Your task to perform on an android device: What's the weather going to be tomorrow? Image 0: 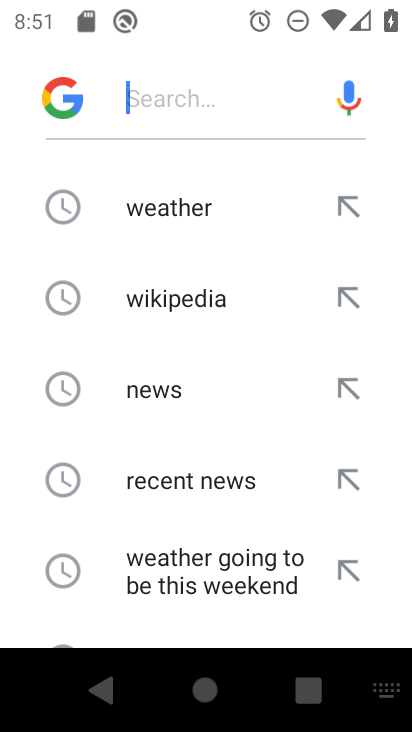
Step 0: press home button
Your task to perform on an android device: What's the weather going to be tomorrow? Image 1: 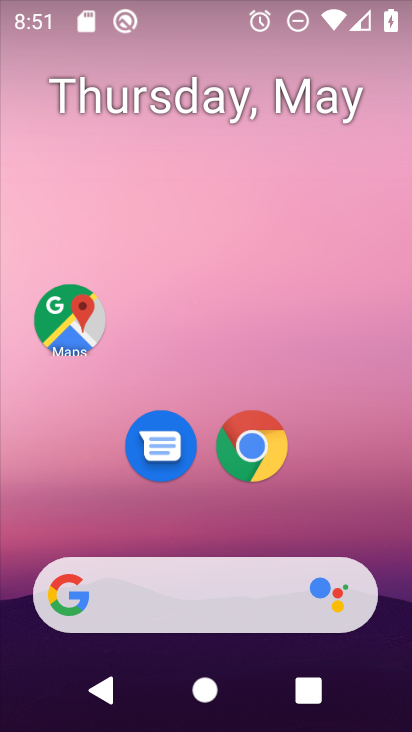
Step 1: drag from (343, 501) to (352, 143)
Your task to perform on an android device: What's the weather going to be tomorrow? Image 2: 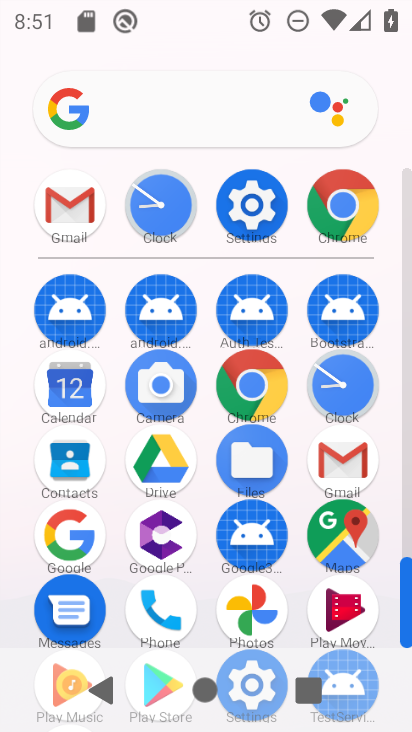
Step 2: click (341, 212)
Your task to perform on an android device: What's the weather going to be tomorrow? Image 3: 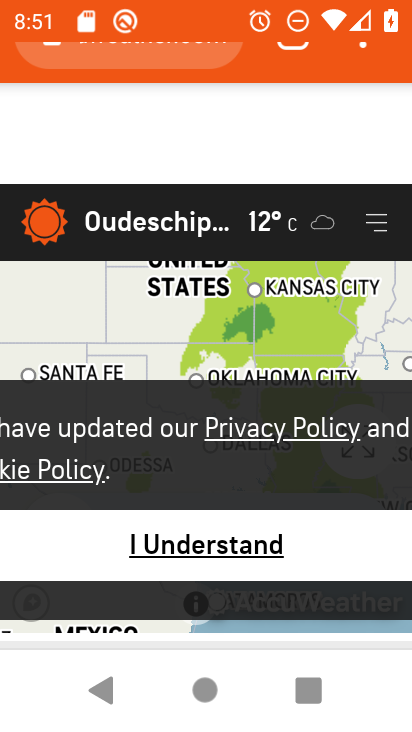
Step 3: drag from (254, 93) to (231, 399)
Your task to perform on an android device: What's the weather going to be tomorrow? Image 4: 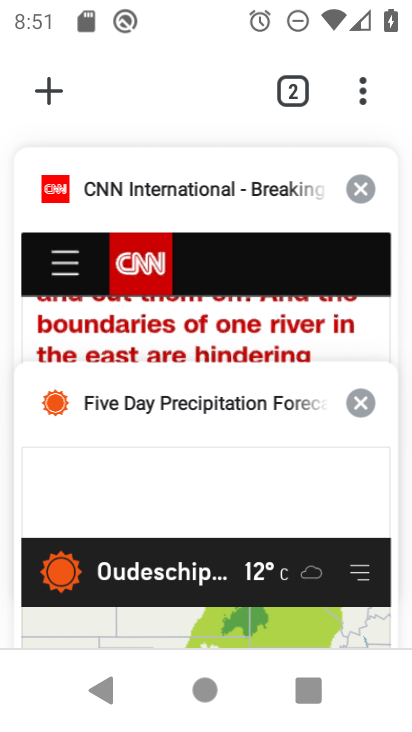
Step 4: click (49, 98)
Your task to perform on an android device: What's the weather going to be tomorrow? Image 5: 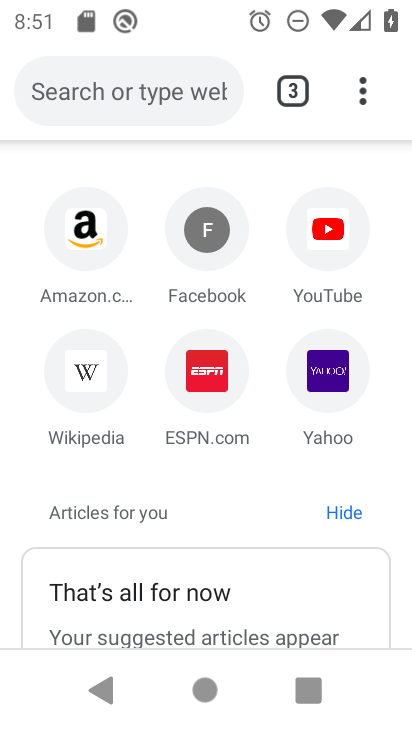
Step 5: type "what's the weather going to be tomorrow"
Your task to perform on an android device: What's the weather going to be tomorrow? Image 6: 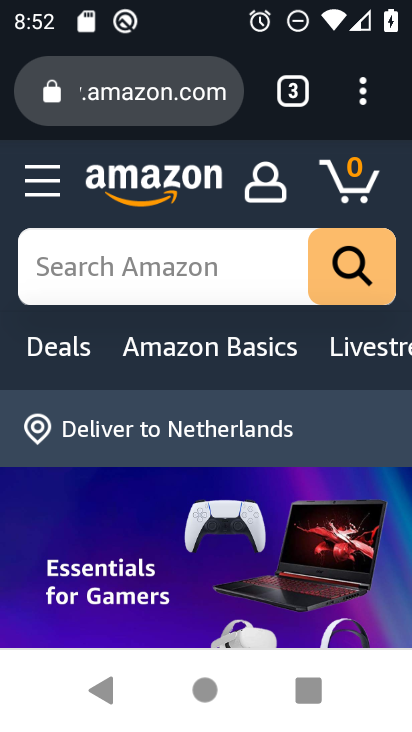
Step 6: task complete